Your task to perform on an android device: Go to settings Image 0: 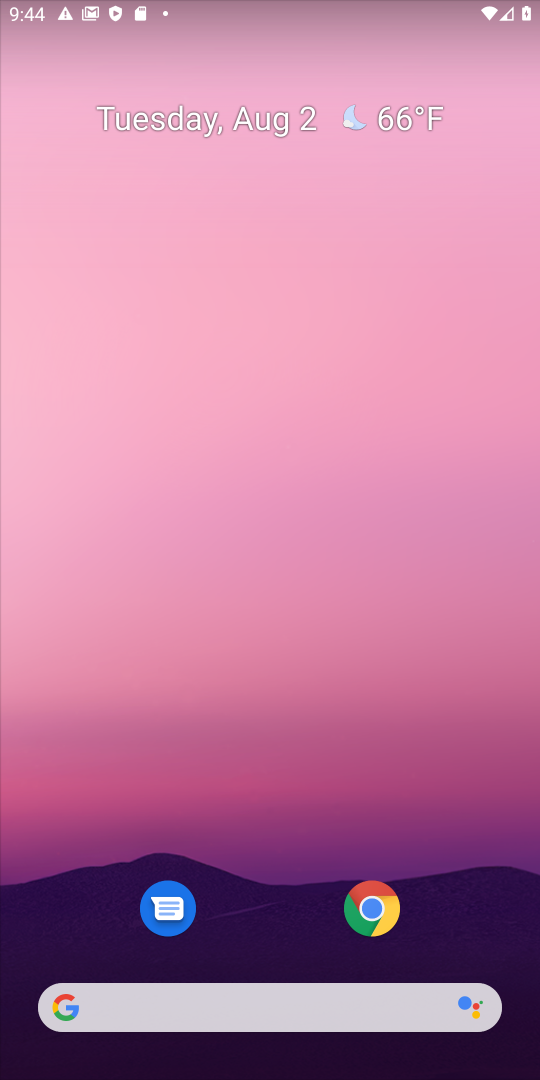
Step 0: drag from (14, 915) to (352, 217)
Your task to perform on an android device: Go to settings Image 1: 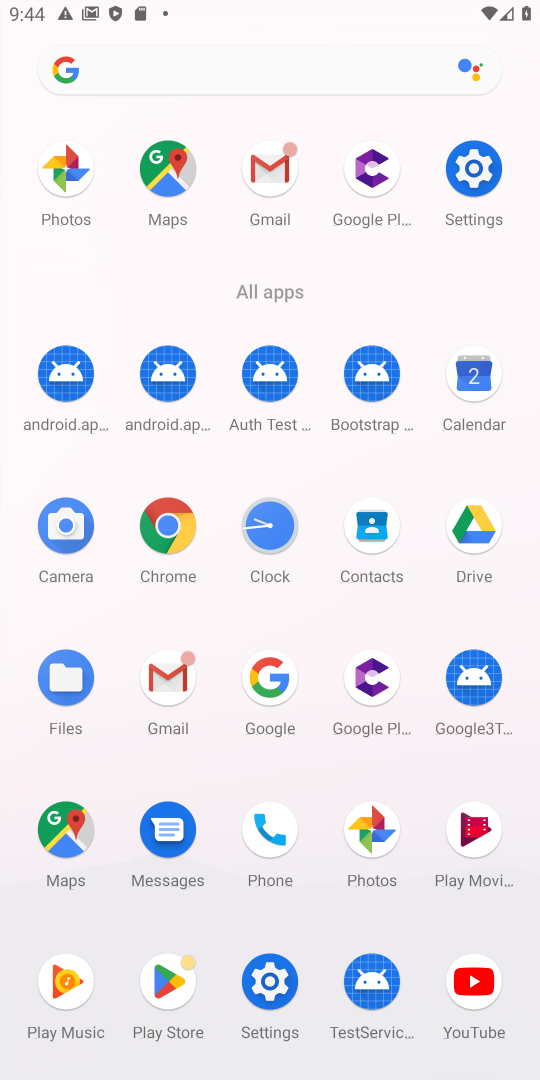
Step 1: click (485, 152)
Your task to perform on an android device: Go to settings Image 2: 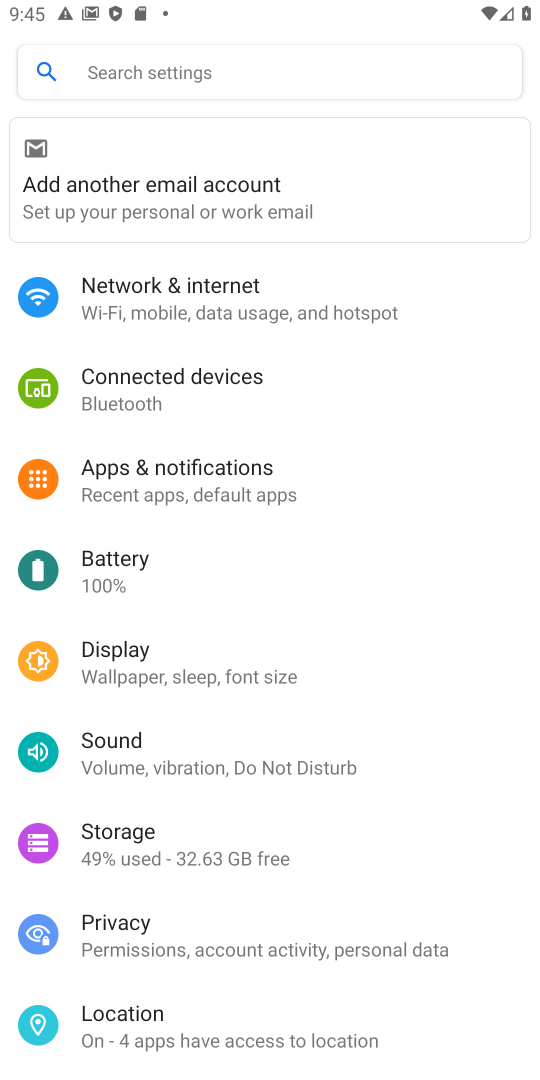
Step 2: task complete